Your task to perform on an android device: Open privacy settings Image 0: 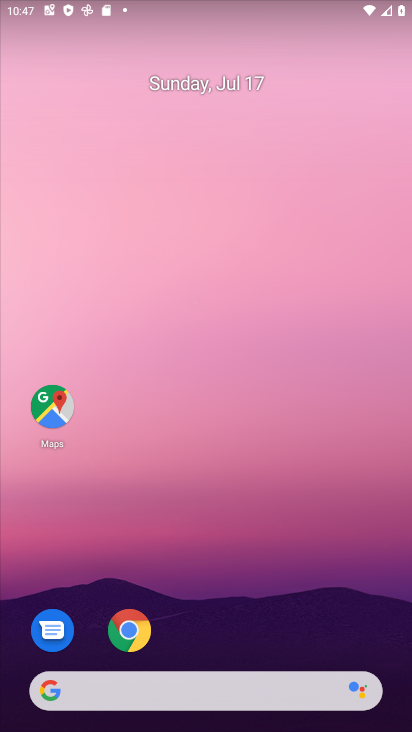
Step 0: drag from (300, 643) to (292, 161)
Your task to perform on an android device: Open privacy settings Image 1: 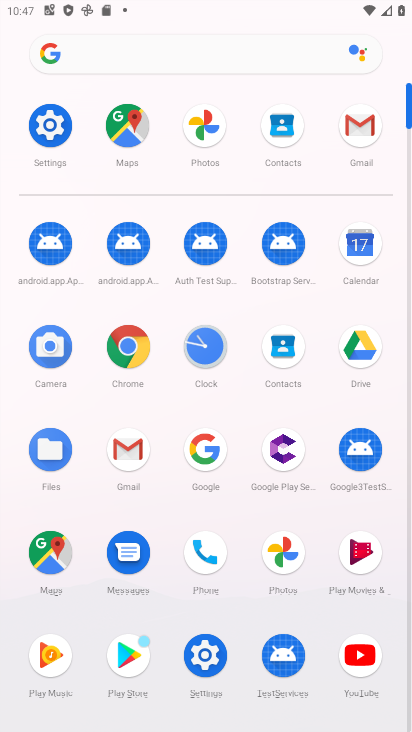
Step 1: click (44, 115)
Your task to perform on an android device: Open privacy settings Image 2: 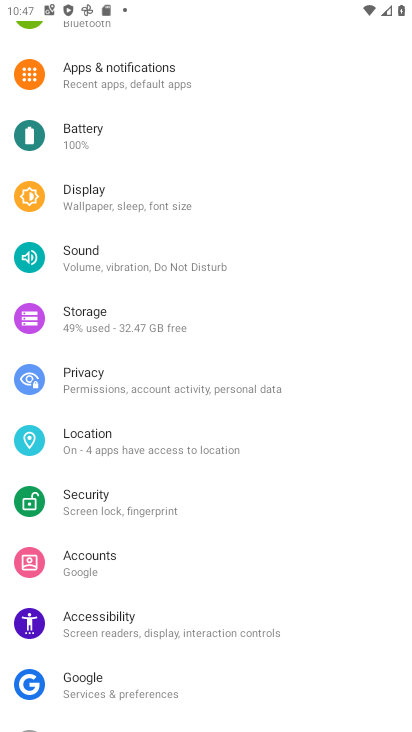
Step 2: click (173, 389)
Your task to perform on an android device: Open privacy settings Image 3: 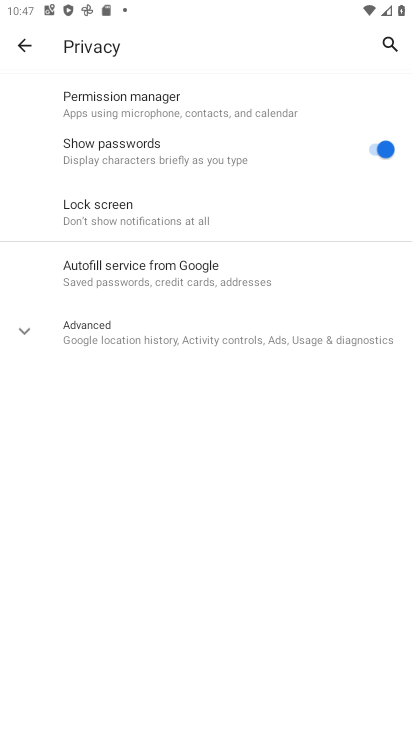
Step 3: task complete